Your task to perform on an android device: delete the emails in spam in the gmail app Image 0: 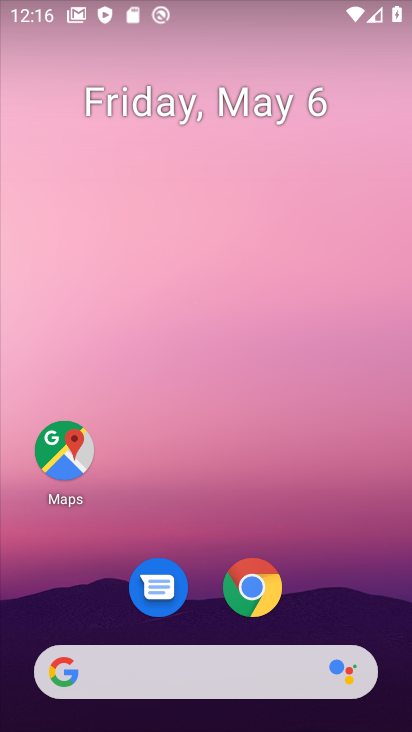
Step 0: drag from (83, 501) to (263, 237)
Your task to perform on an android device: delete the emails in spam in the gmail app Image 1: 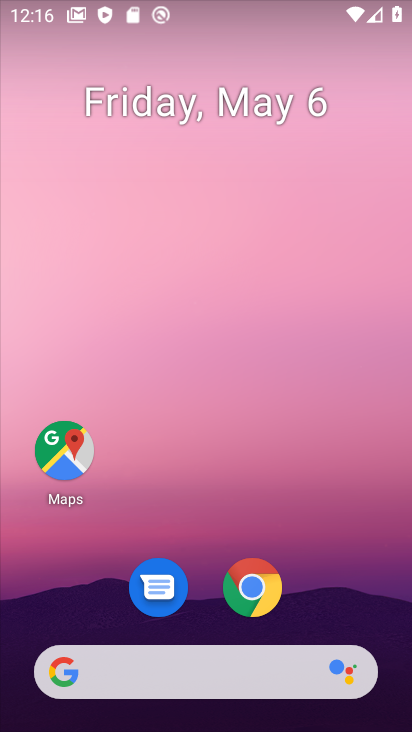
Step 1: drag from (87, 453) to (202, 185)
Your task to perform on an android device: delete the emails in spam in the gmail app Image 2: 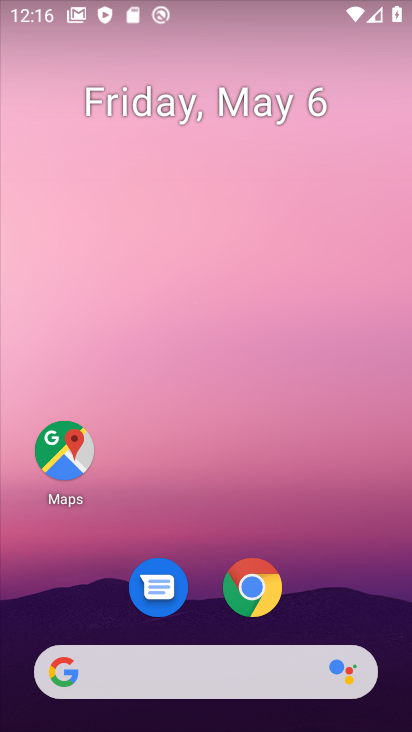
Step 2: drag from (11, 636) to (234, 149)
Your task to perform on an android device: delete the emails in spam in the gmail app Image 3: 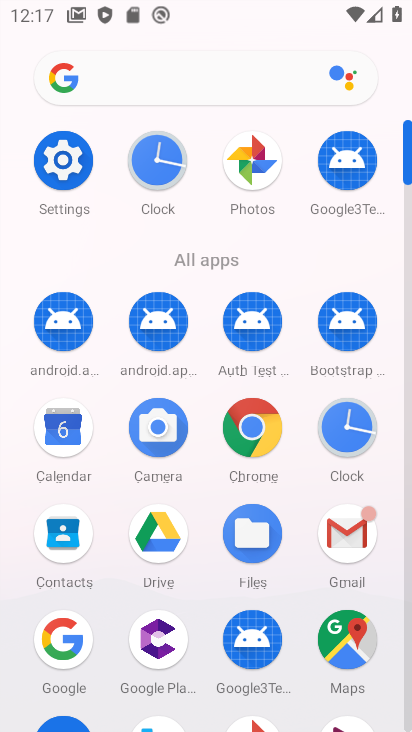
Step 3: click (367, 517)
Your task to perform on an android device: delete the emails in spam in the gmail app Image 4: 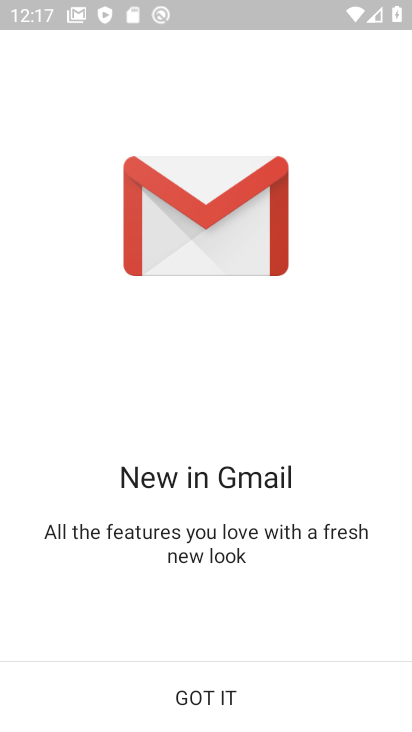
Step 4: click (121, 693)
Your task to perform on an android device: delete the emails in spam in the gmail app Image 5: 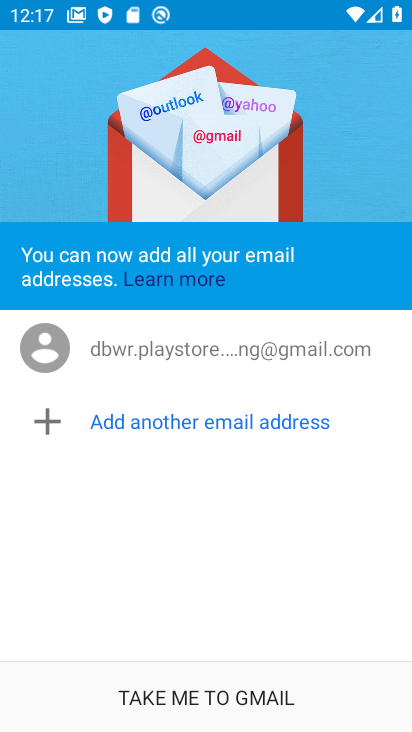
Step 5: click (279, 690)
Your task to perform on an android device: delete the emails in spam in the gmail app Image 6: 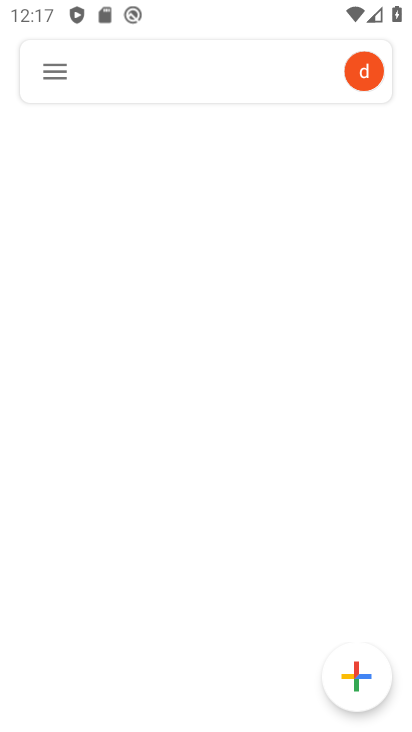
Step 6: click (56, 80)
Your task to perform on an android device: delete the emails in spam in the gmail app Image 7: 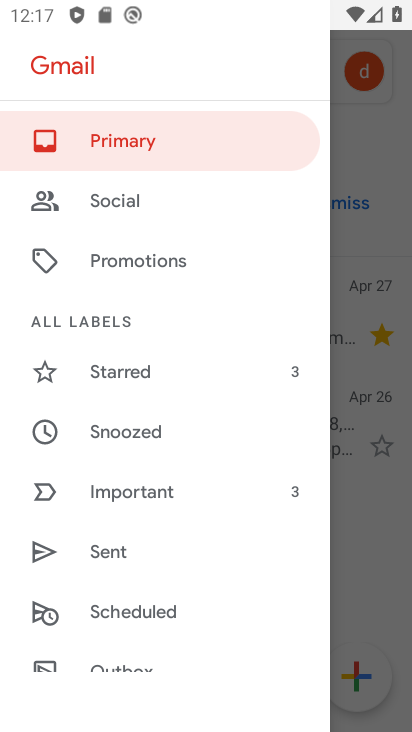
Step 7: drag from (100, 623) to (195, 267)
Your task to perform on an android device: delete the emails in spam in the gmail app Image 8: 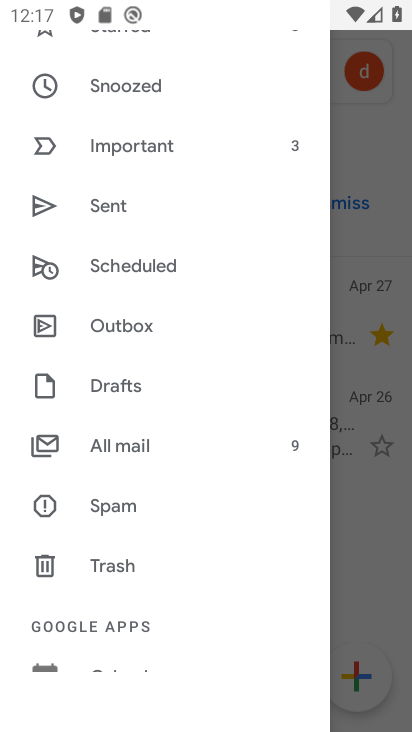
Step 8: click (141, 513)
Your task to perform on an android device: delete the emails in spam in the gmail app Image 9: 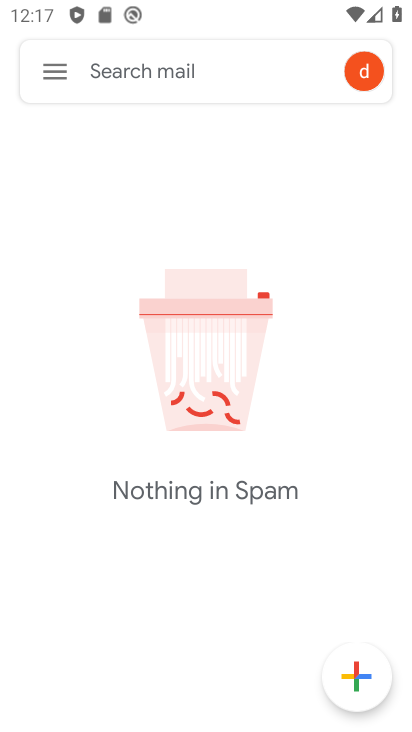
Step 9: task complete